Your task to perform on an android device: set the timer Image 0: 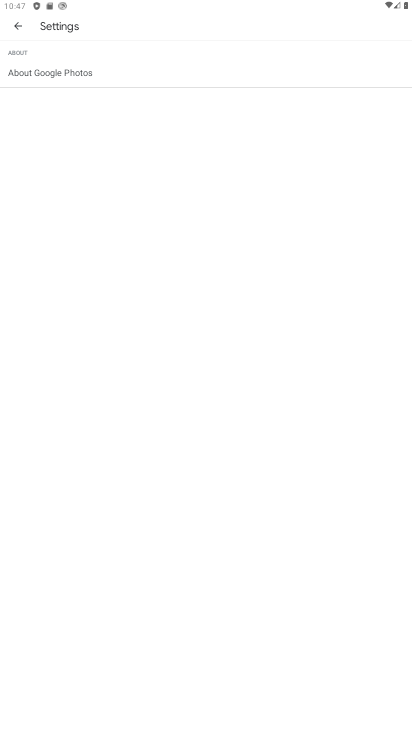
Step 0: press home button
Your task to perform on an android device: set the timer Image 1: 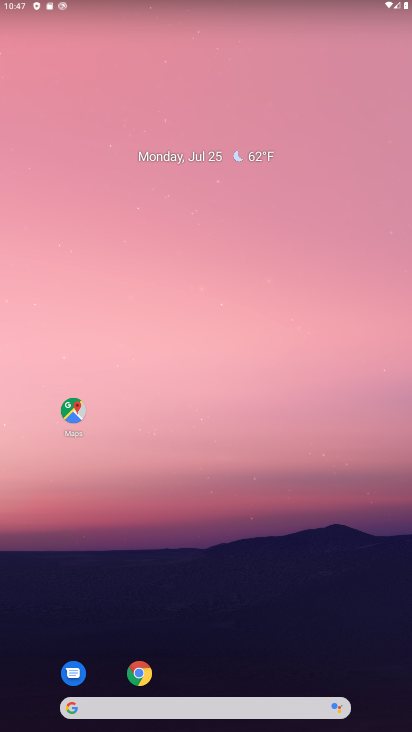
Step 1: drag from (269, 639) to (173, 16)
Your task to perform on an android device: set the timer Image 2: 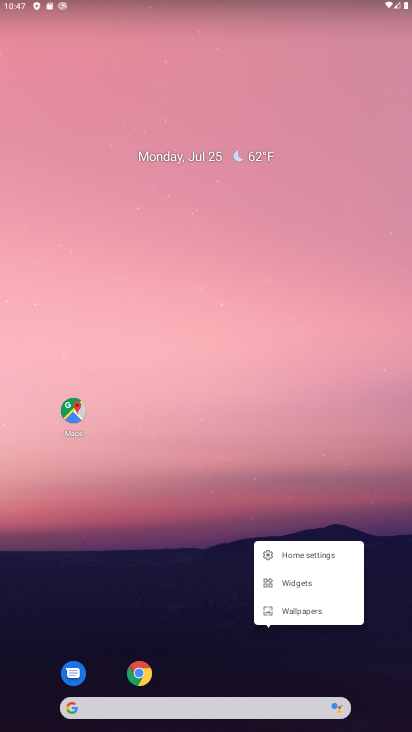
Step 2: drag from (166, 634) to (105, 0)
Your task to perform on an android device: set the timer Image 3: 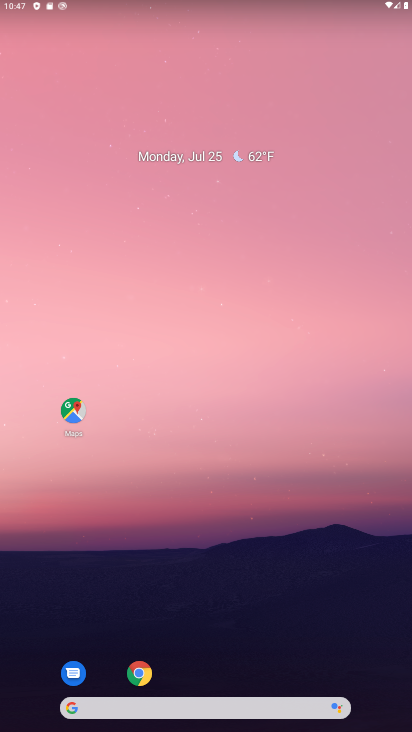
Step 3: drag from (237, 634) to (91, 11)
Your task to perform on an android device: set the timer Image 4: 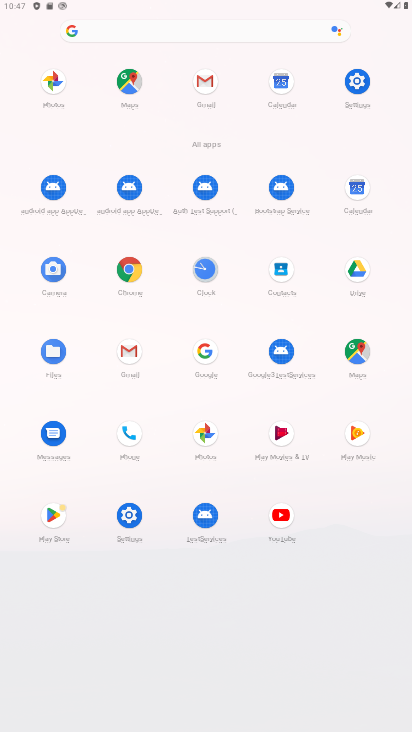
Step 4: click (200, 272)
Your task to perform on an android device: set the timer Image 5: 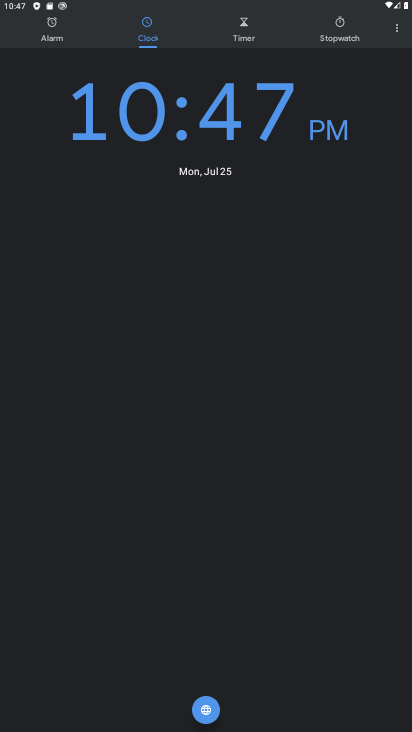
Step 5: click (241, 32)
Your task to perform on an android device: set the timer Image 6: 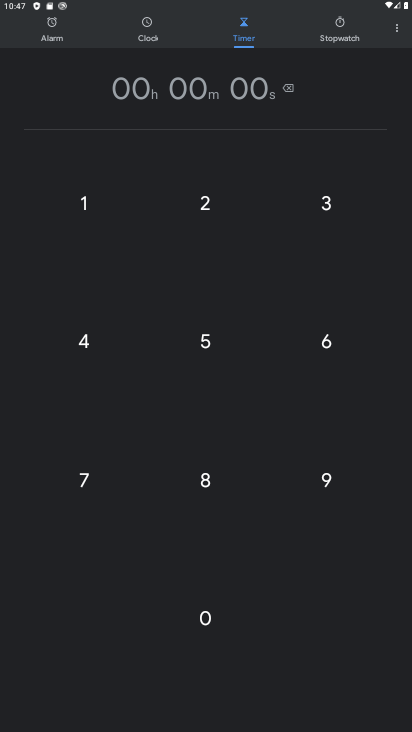
Step 6: click (201, 471)
Your task to perform on an android device: set the timer Image 7: 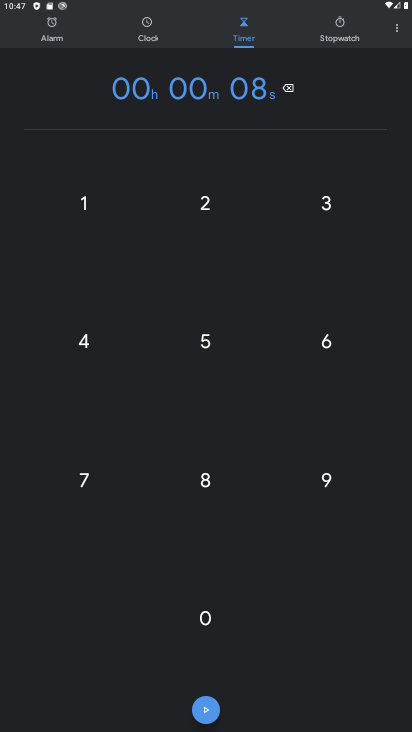
Step 7: click (210, 324)
Your task to perform on an android device: set the timer Image 8: 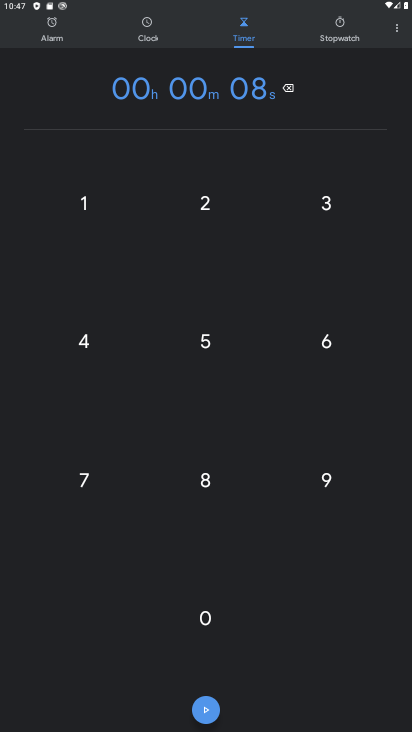
Step 8: click (209, 324)
Your task to perform on an android device: set the timer Image 9: 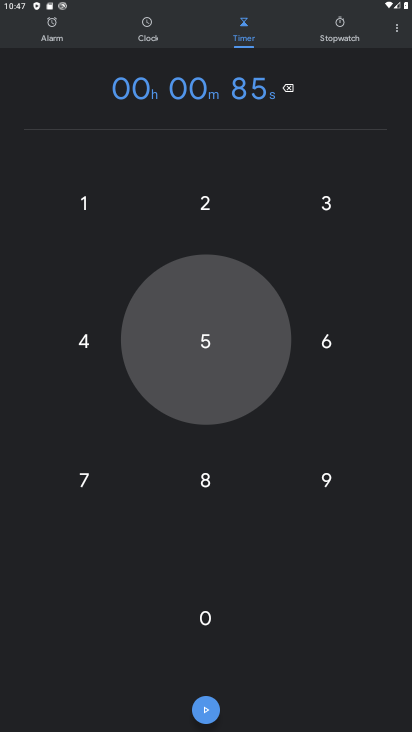
Step 9: click (209, 324)
Your task to perform on an android device: set the timer Image 10: 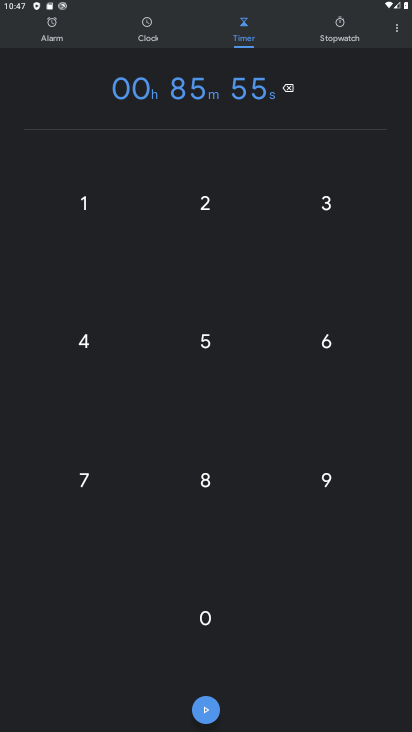
Step 10: click (331, 347)
Your task to perform on an android device: set the timer Image 11: 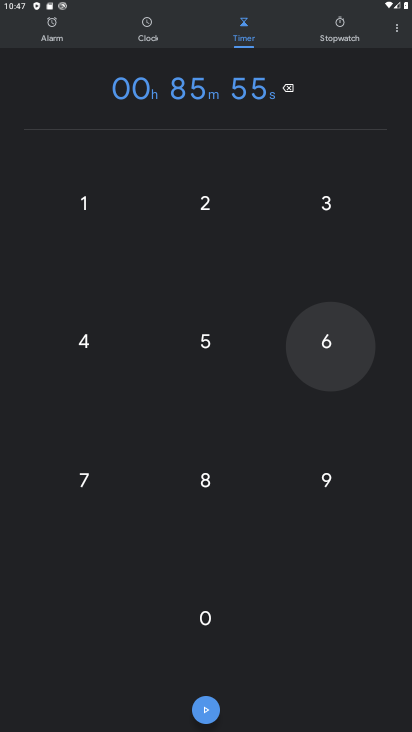
Step 11: click (331, 346)
Your task to perform on an android device: set the timer Image 12: 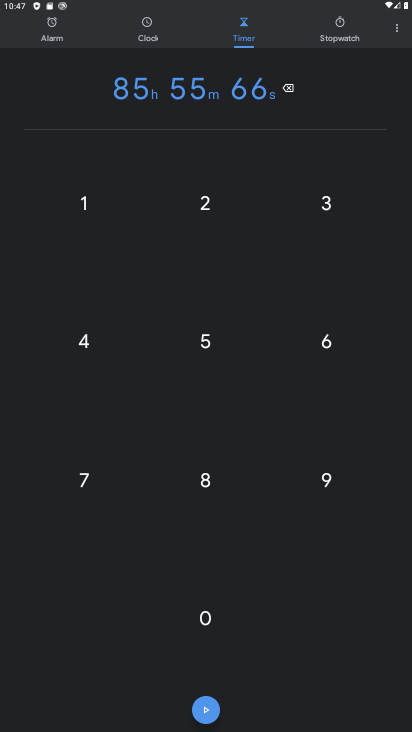
Step 12: click (203, 708)
Your task to perform on an android device: set the timer Image 13: 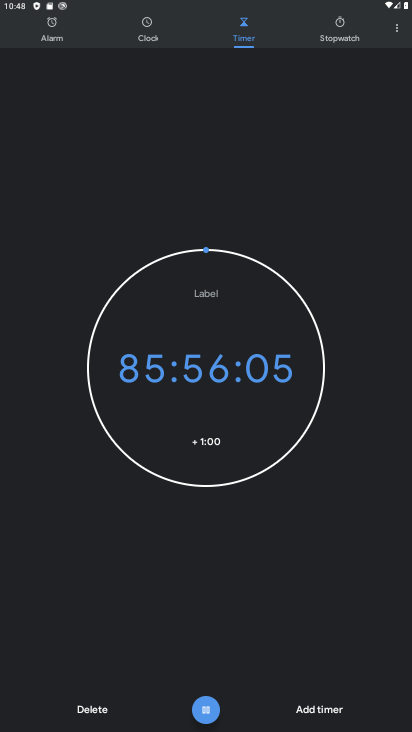
Step 13: task complete